Your task to perform on an android device: Open Amazon Image 0: 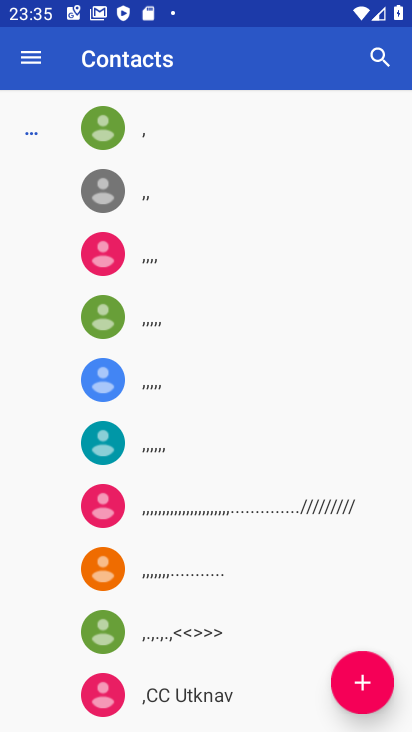
Step 0: press home button
Your task to perform on an android device: Open Amazon Image 1: 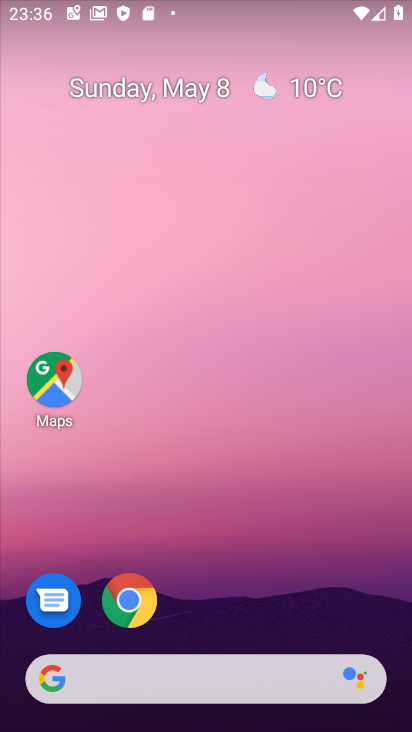
Step 1: click (140, 593)
Your task to perform on an android device: Open Amazon Image 2: 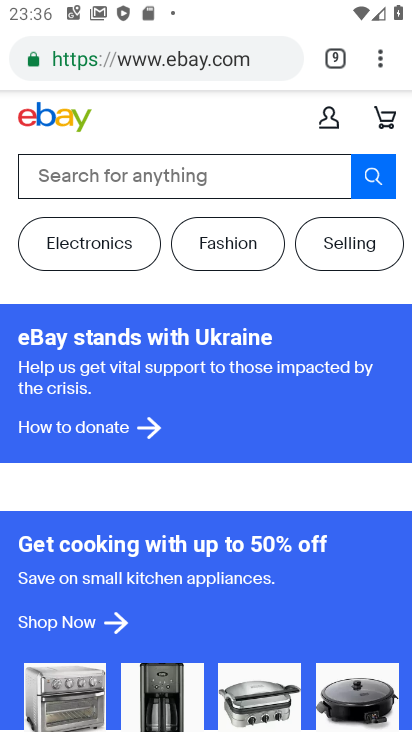
Step 2: click (330, 55)
Your task to perform on an android device: Open Amazon Image 3: 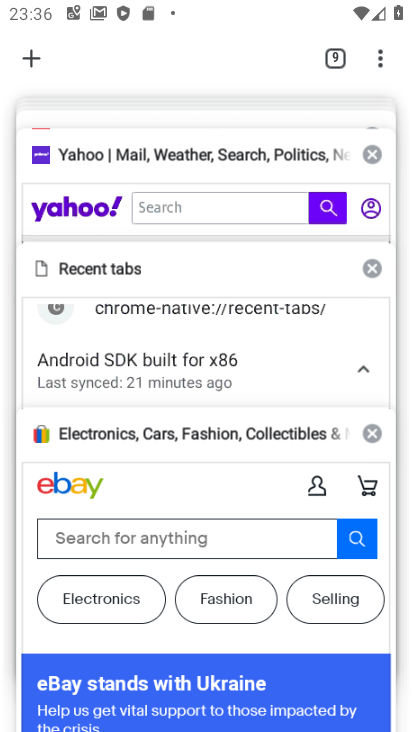
Step 3: click (42, 77)
Your task to perform on an android device: Open Amazon Image 4: 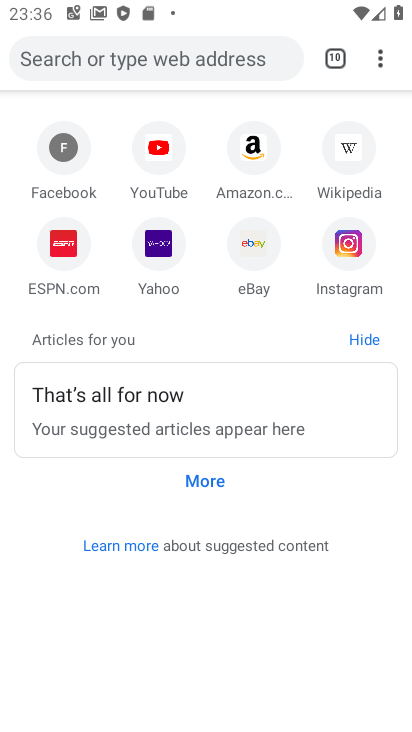
Step 4: click (254, 156)
Your task to perform on an android device: Open Amazon Image 5: 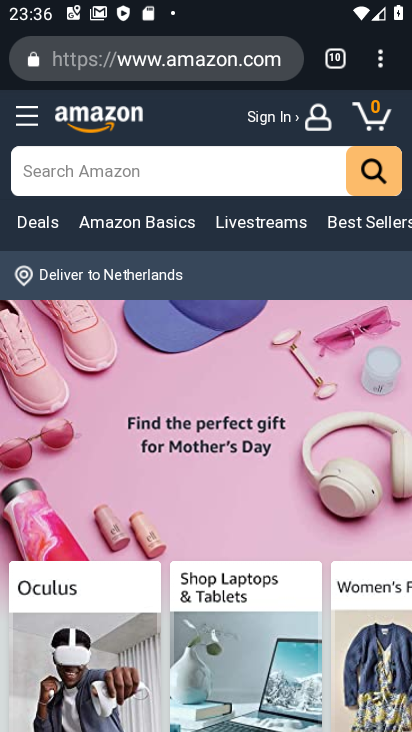
Step 5: task complete